Your task to perform on an android device: open app "PlayWell" Image 0: 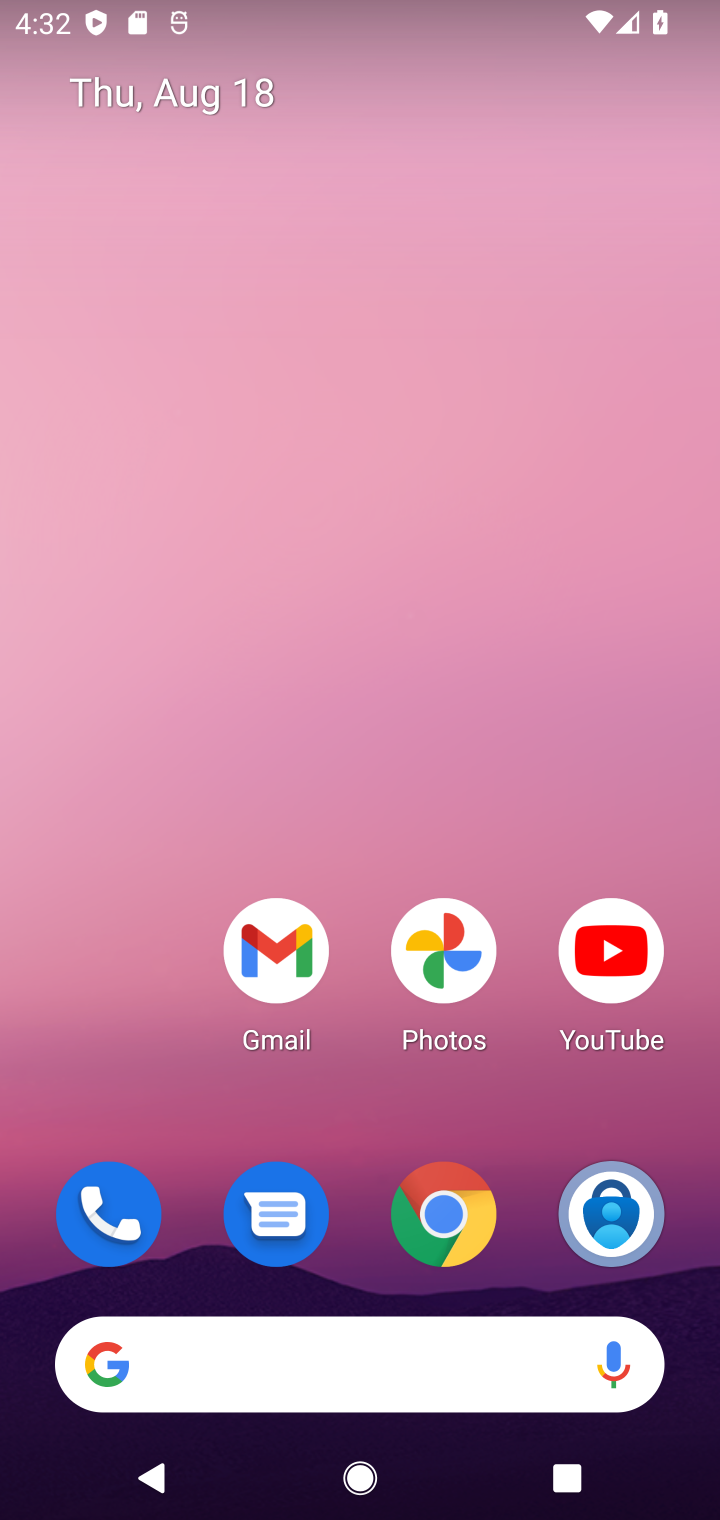
Step 0: drag from (340, 1237) to (379, 655)
Your task to perform on an android device: open app "PlayWell" Image 1: 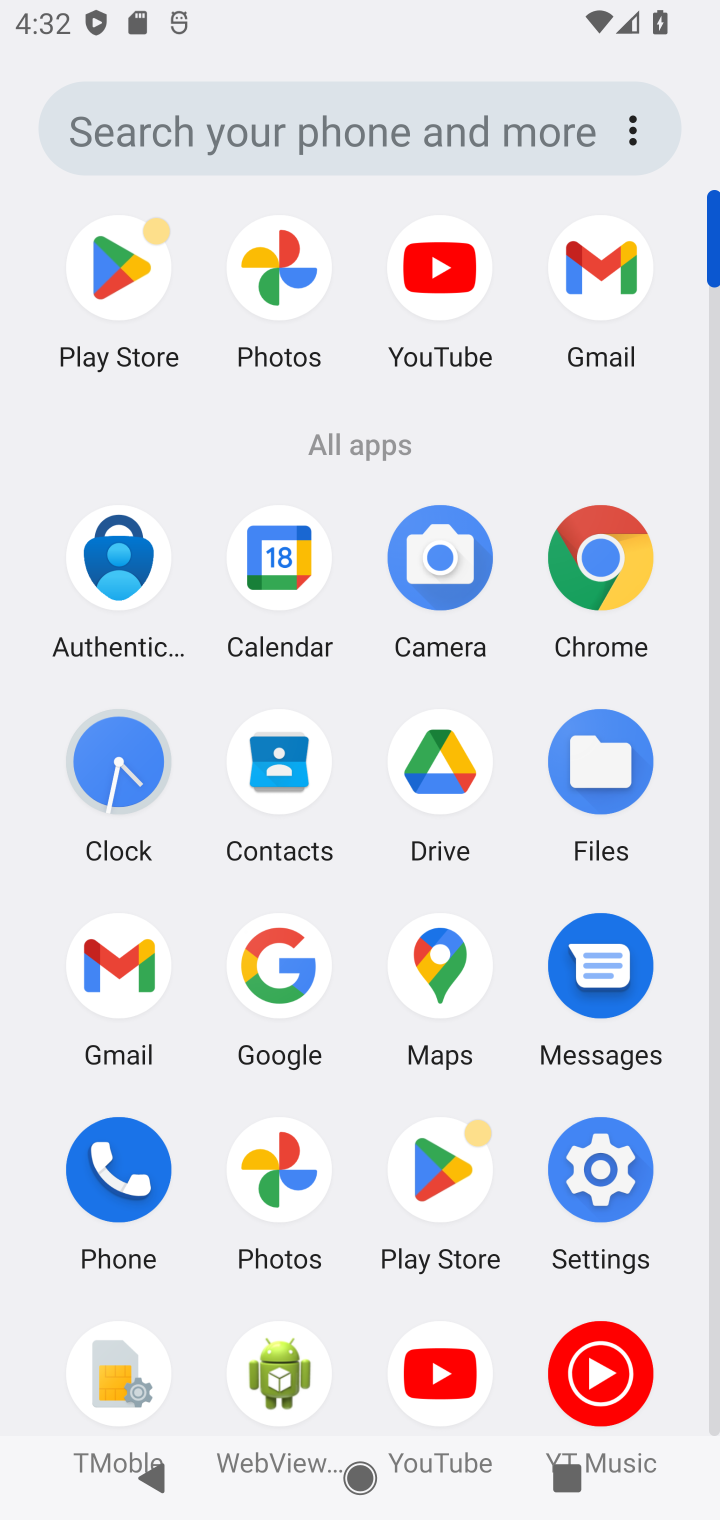
Step 1: click (438, 1203)
Your task to perform on an android device: open app "PlayWell" Image 2: 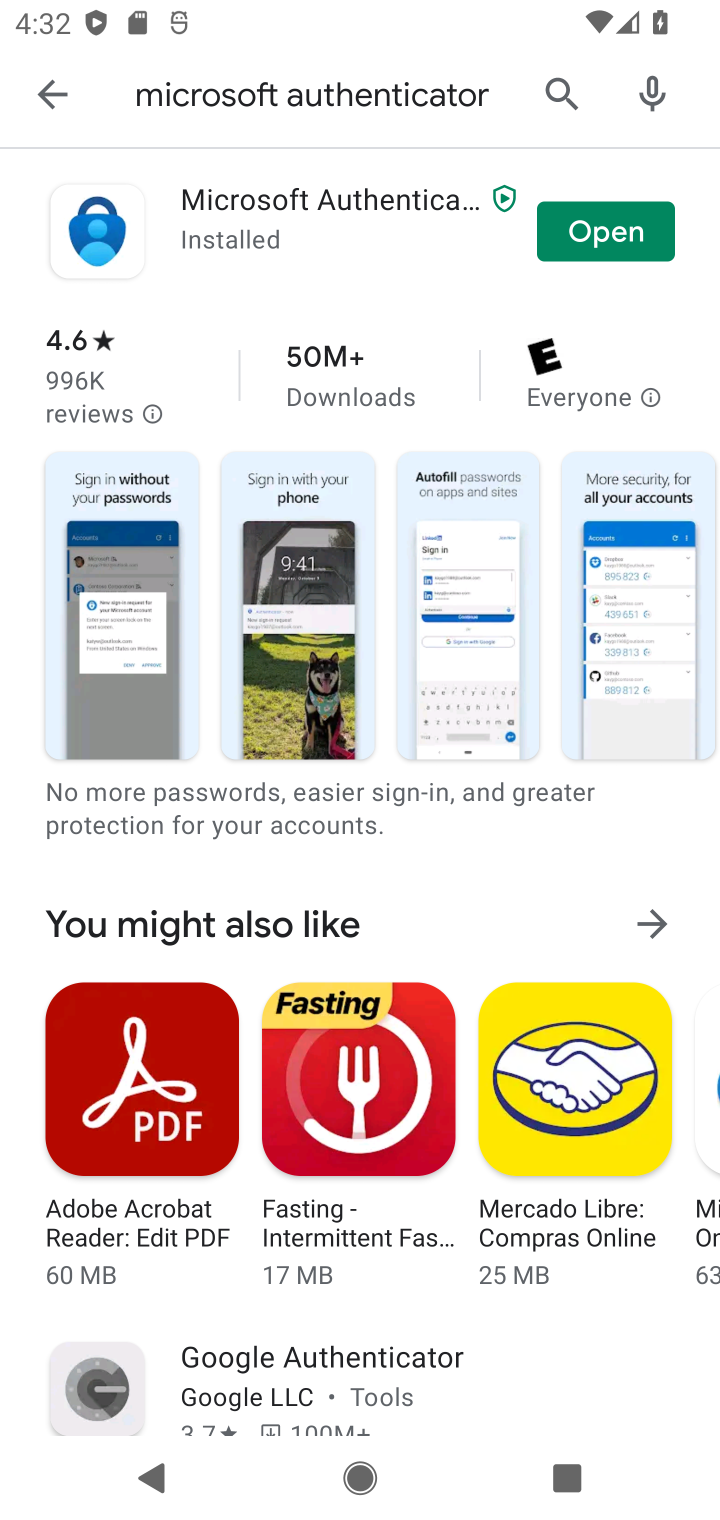
Step 2: click (444, 74)
Your task to perform on an android device: open app "PlayWell" Image 3: 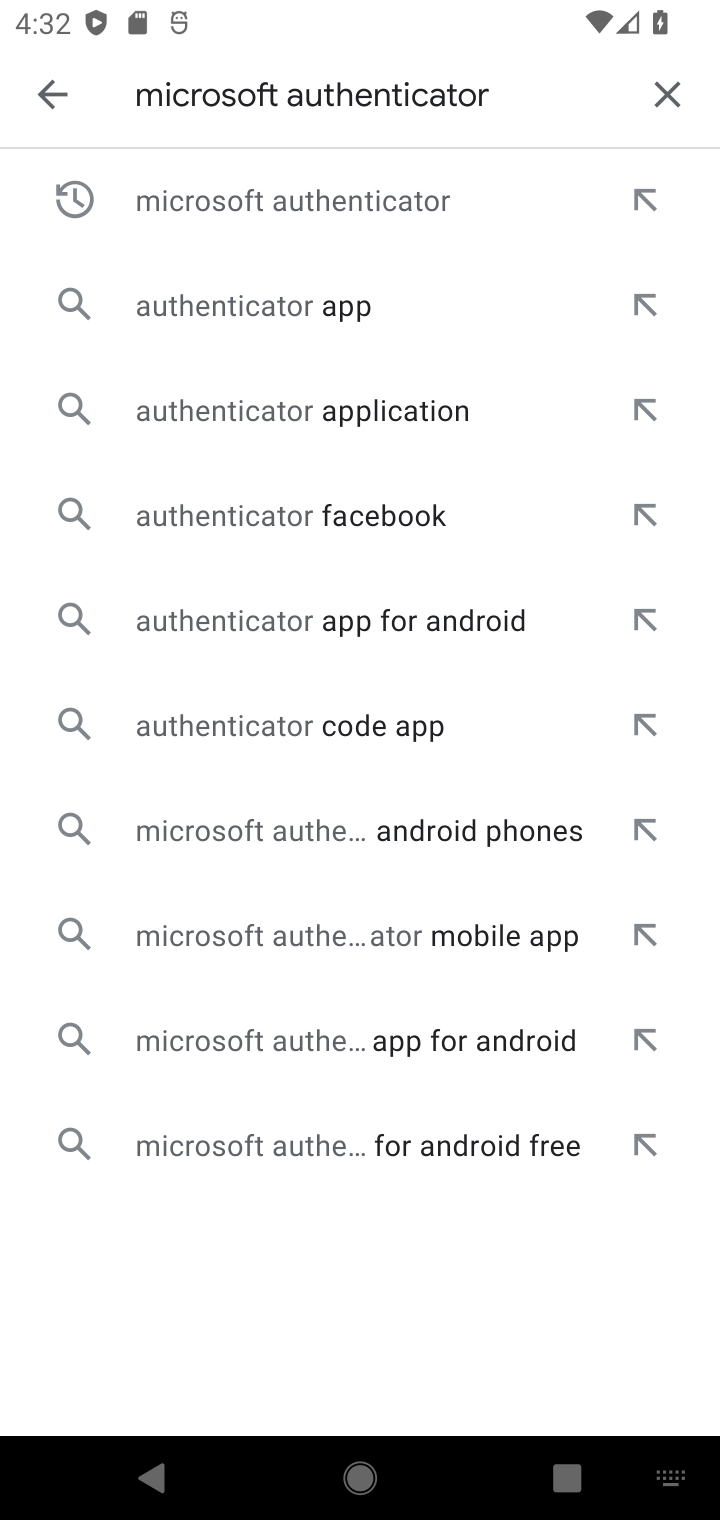
Step 3: click (660, 92)
Your task to perform on an android device: open app "PlayWell" Image 4: 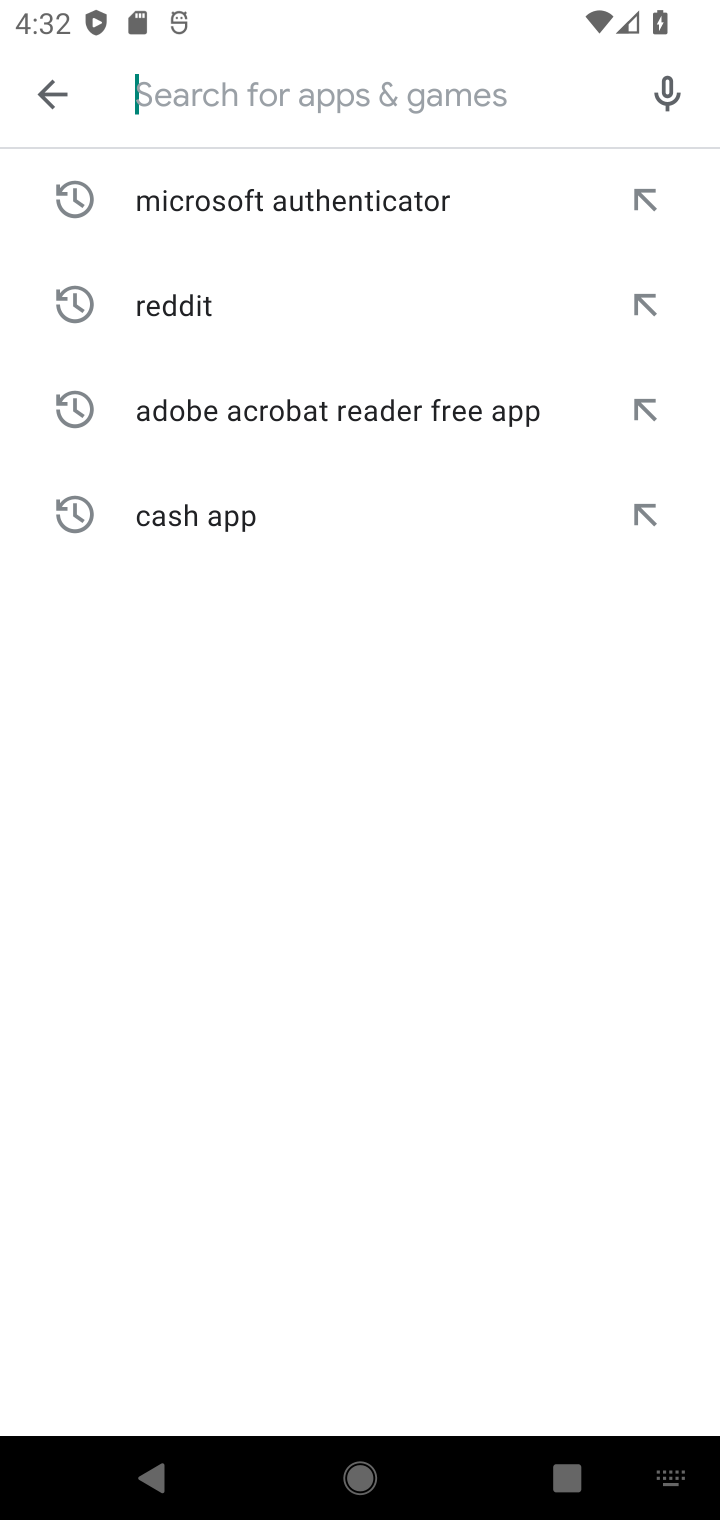
Step 4: type "playwell"
Your task to perform on an android device: open app "PlayWell" Image 5: 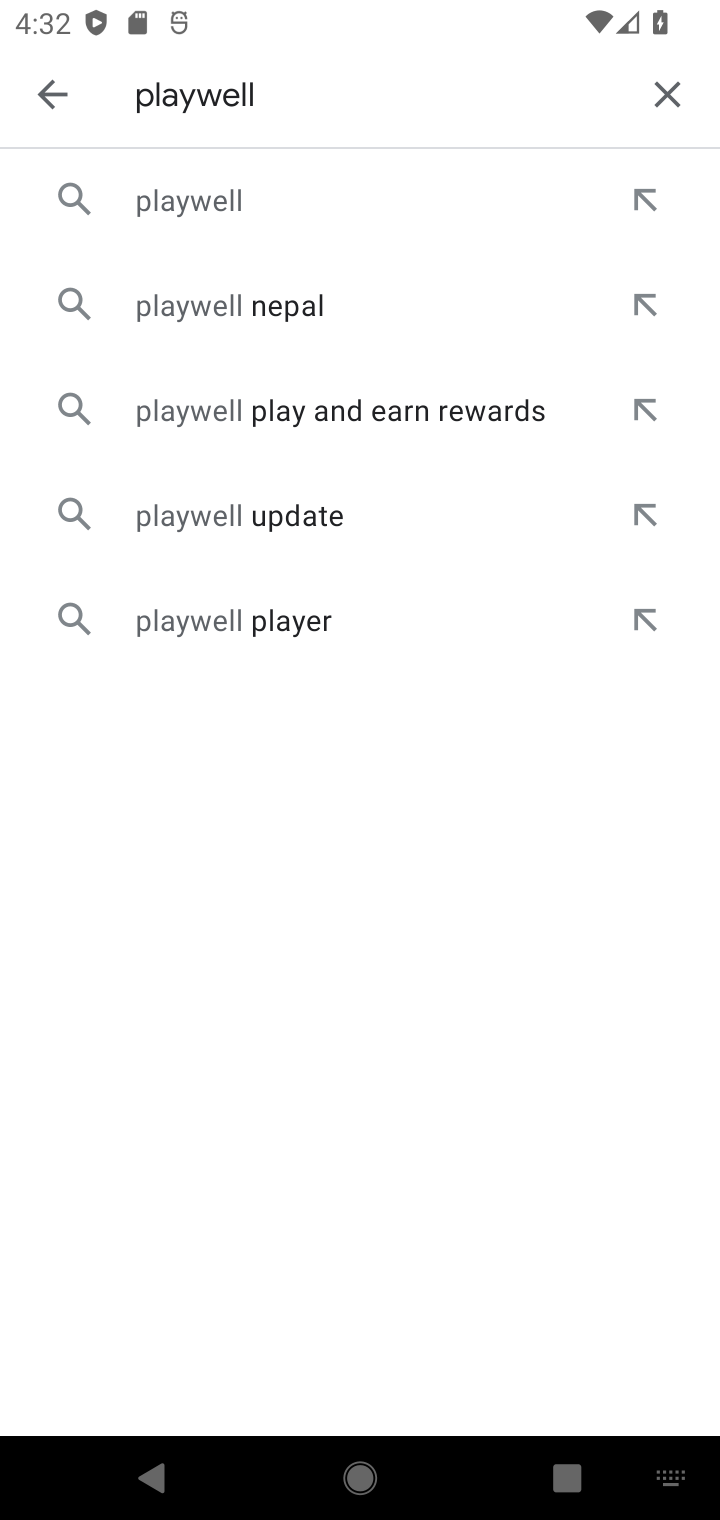
Step 5: click (181, 195)
Your task to perform on an android device: open app "PlayWell" Image 6: 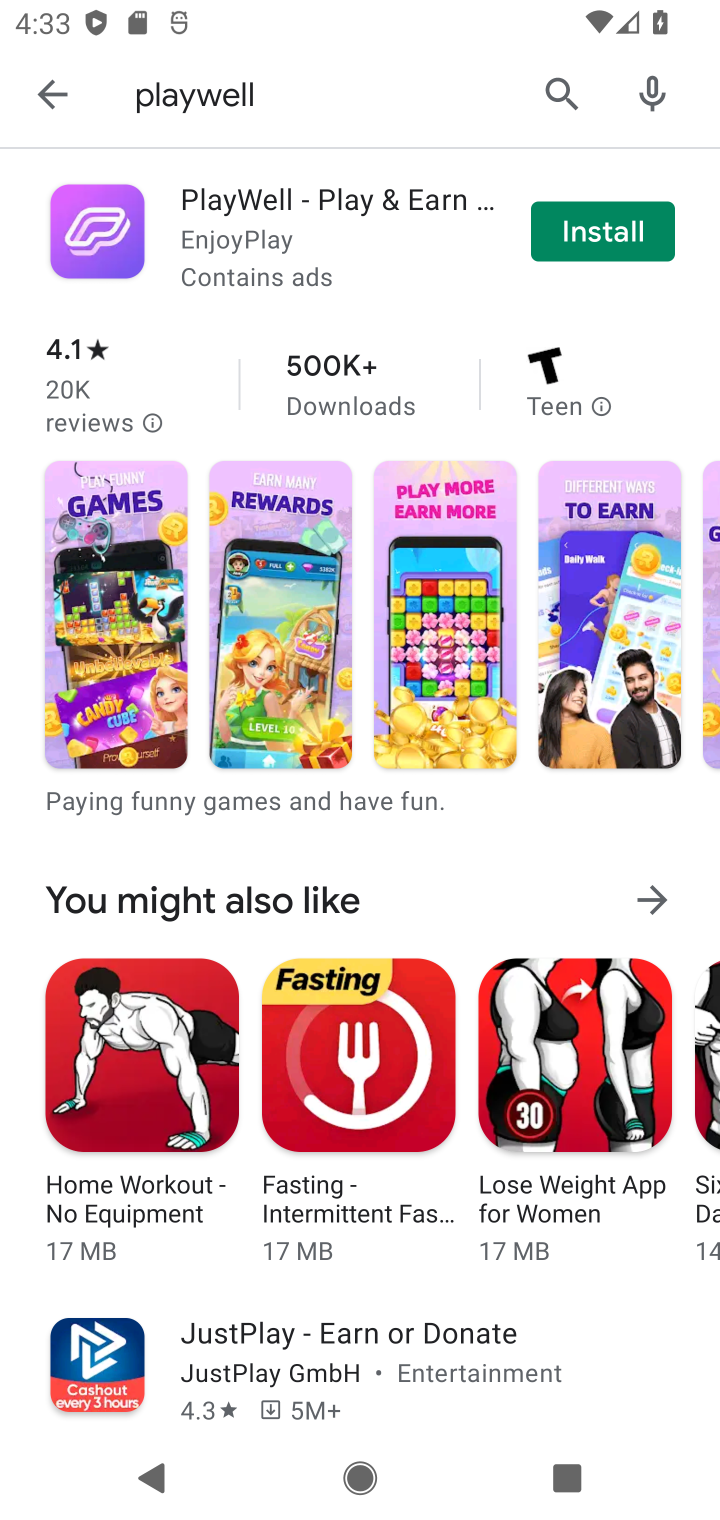
Step 6: task complete